Your task to perform on an android device: Is it going to rain today? Image 0: 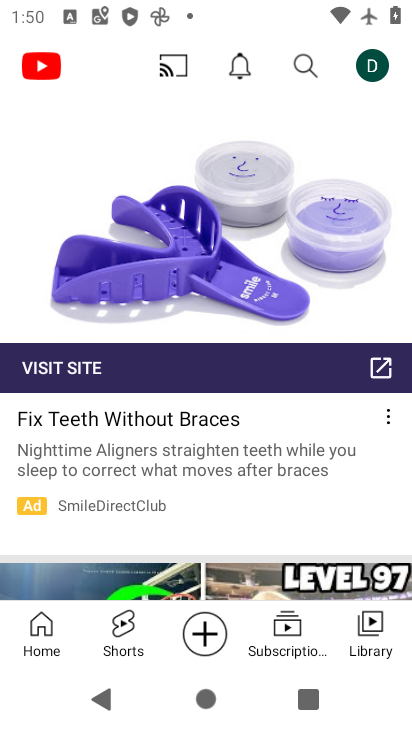
Step 0: press home button
Your task to perform on an android device: Is it going to rain today? Image 1: 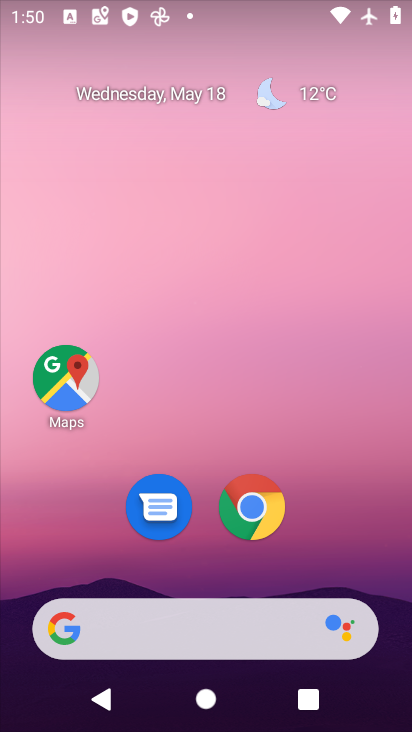
Step 1: click (304, 91)
Your task to perform on an android device: Is it going to rain today? Image 2: 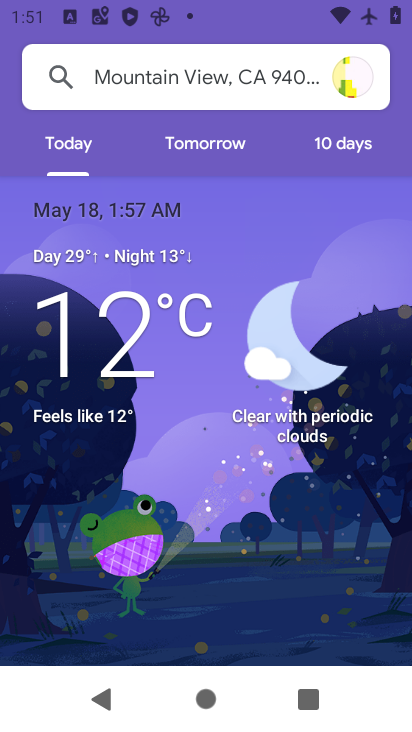
Step 2: task complete